Your task to perform on an android device: see tabs open on other devices in the chrome app Image 0: 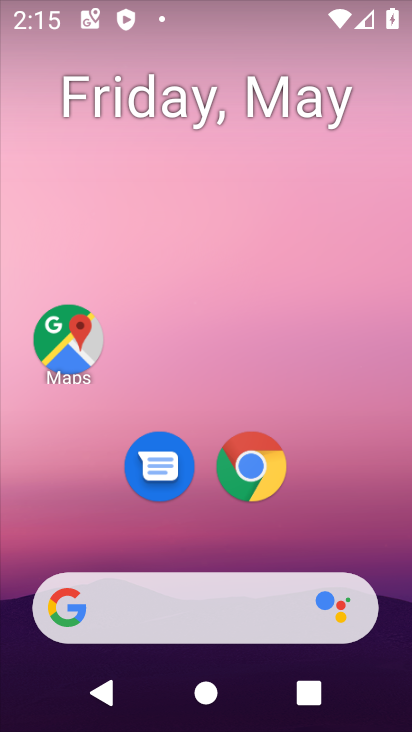
Step 0: click (239, 459)
Your task to perform on an android device: see tabs open on other devices in the chrome app Image 1: 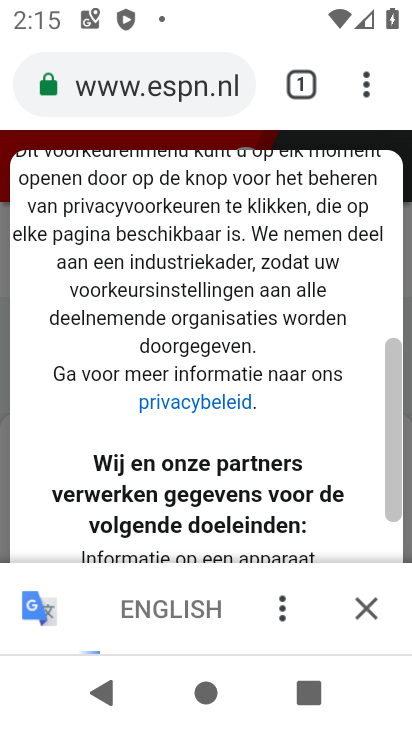
Step 1: task complete